Your task to perform on an android device: Open Google Image 0: 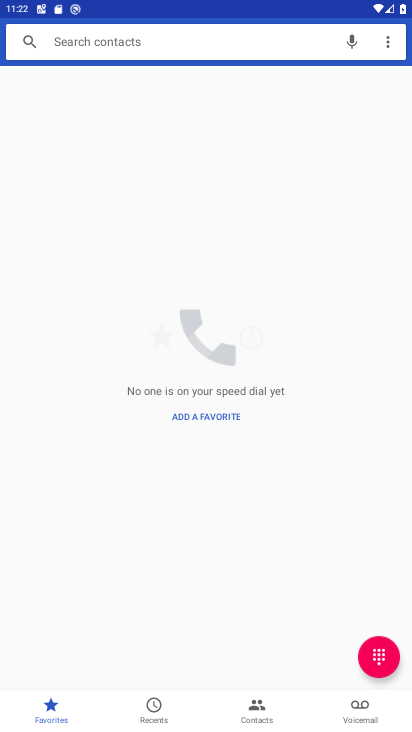
Step 0: press home button
Your task to perform on an android device: Open Google Image 1: 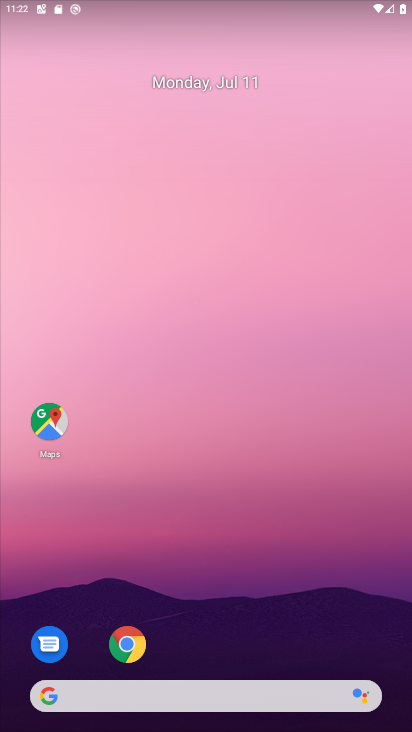
Step 1: drag from (257, 577) to (220, 0)
Your task to perform on an android device: Open Google Image 2: 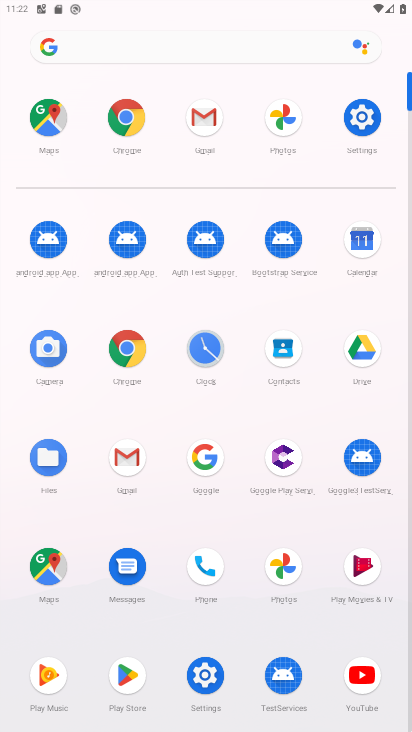
Step 2: click (211, 452)
Your task to perform on an android device: Open Google Image 3: 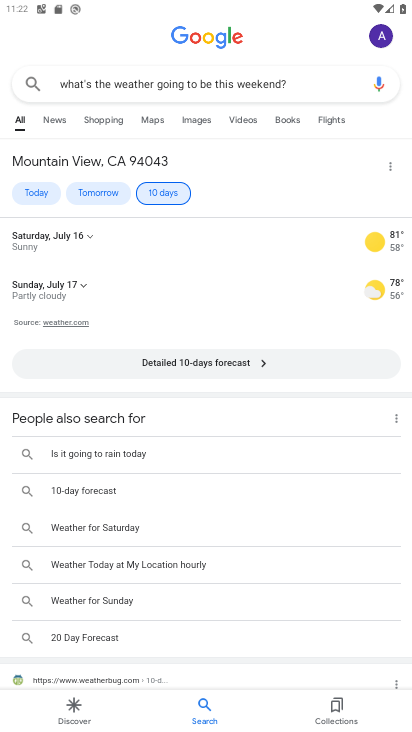
Step 3: task complete